Your task to perform on an android device: change notifications settings Image 0: 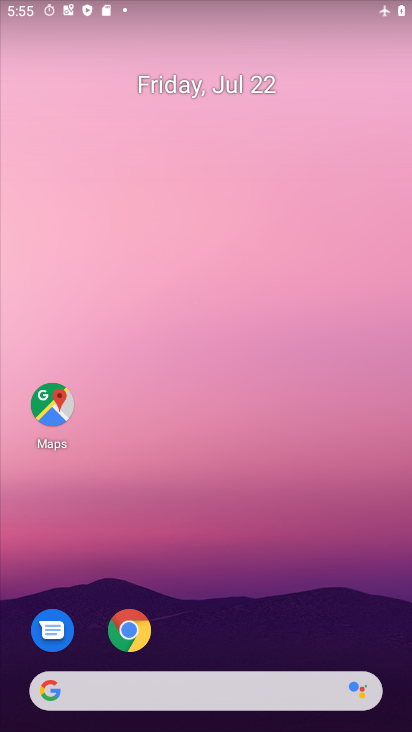
Step 0: drag from (281, 434) to (219, 33)
Your task to perform on an android device: change notifications settings Image 1: 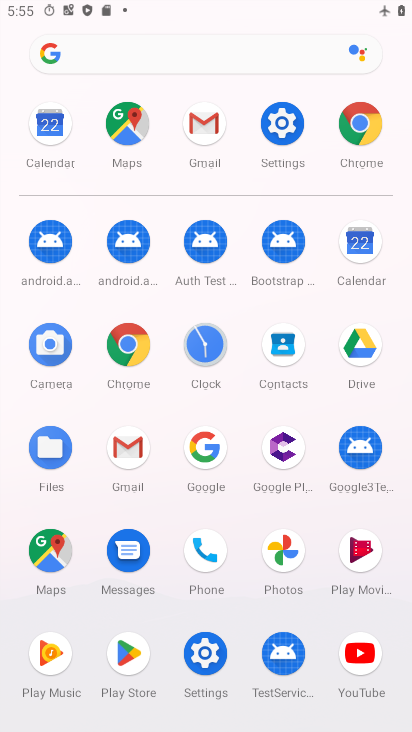
Step 1: click (283, 131)
Your task to perform on an android device: change notifications settings Image 2: 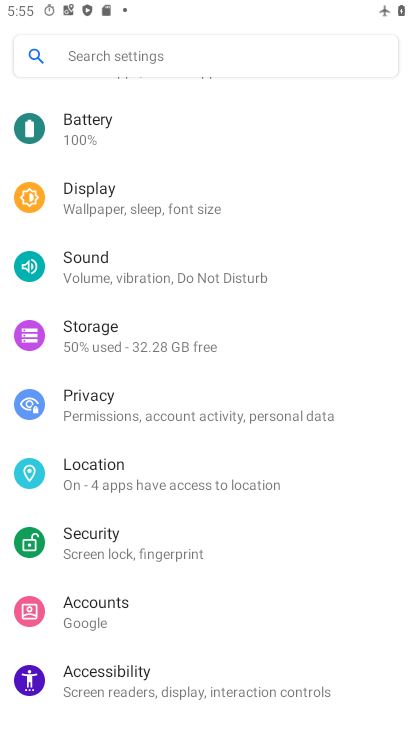
Step 2: drag from (163, 188) to (175, 607)
Your task to perform on an android device: change notifications settings Image 3: 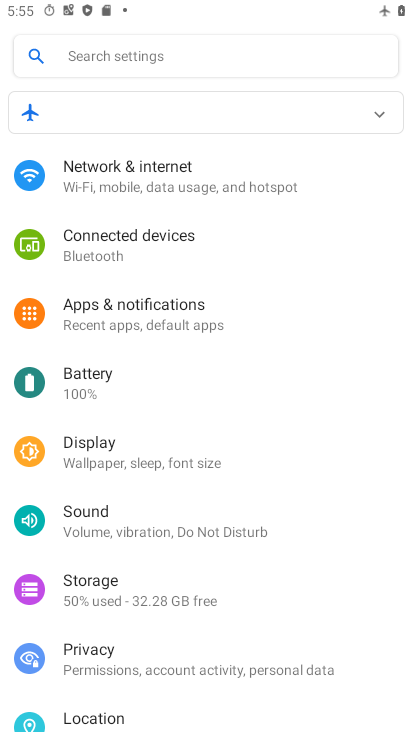
Step 3: click (144, 299)
Your task to perform on an android device: change notifications settings Image 4: 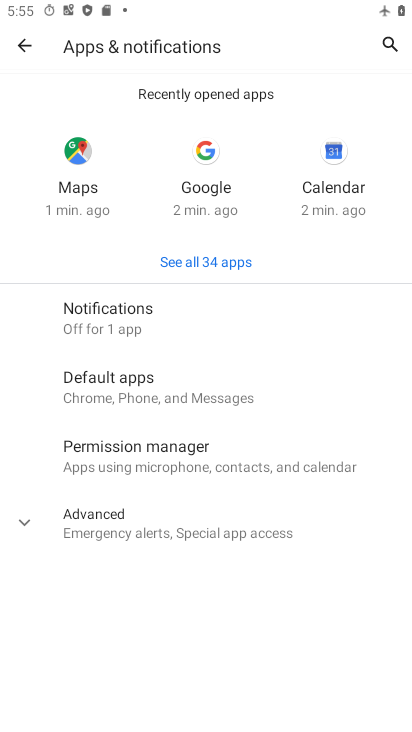
Step 4: click (145, 322)
Your task to perform on an android device: change notifications settings Image 5: 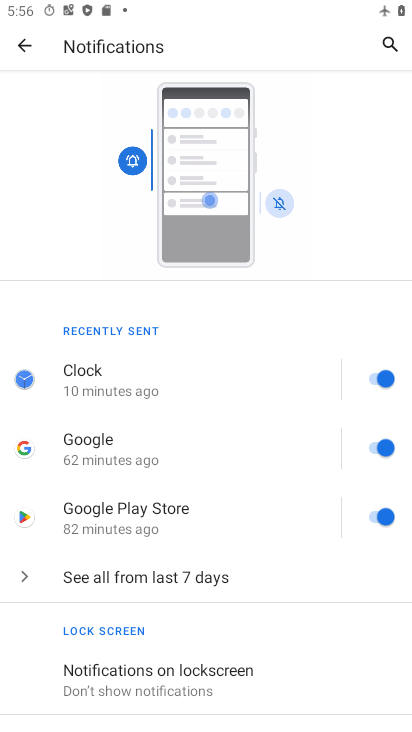
Step 5: click (378, 374)
Your task to perform on an android device: change notifications settings Image 6: 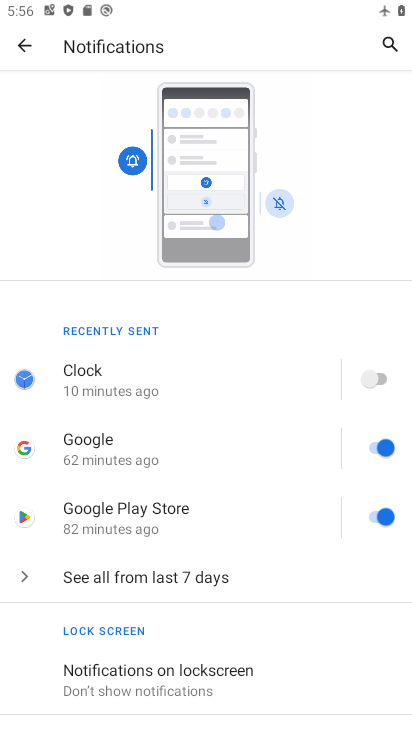
Step 6: task complete